Your task to perform on an android device: Open Reddit.com Image 0: 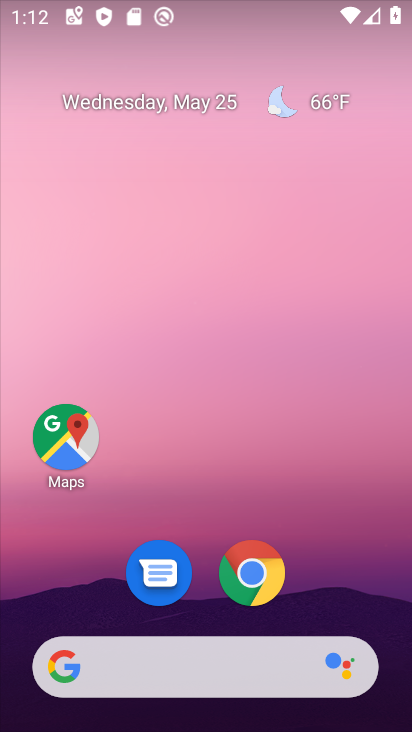
Step 0: drag from (201, 17) to (221, 449)
Your task to perform on an android device: Open Reddit.com Image 1: 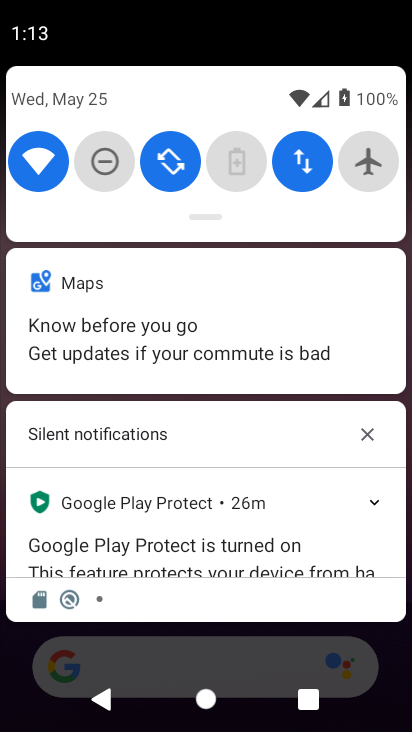
Step 1: press back button
Your task to perform on an android device: Open Reddit.com Image 2: 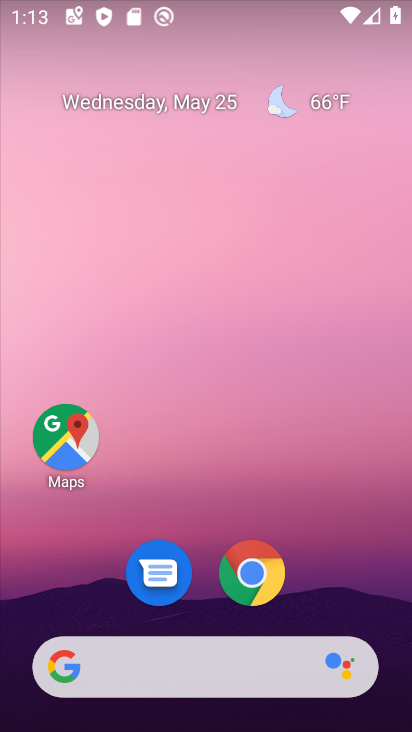
Step 2: click (249, 576)
Your task to perform on an android device: Open Reddit.com Image 3: 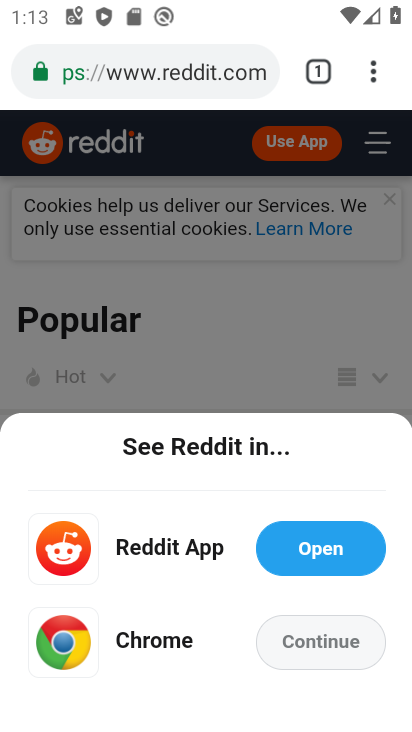
Step 3: task complete